Your task to perform on an android device: turn off smart reply in the gmail app Image 0: 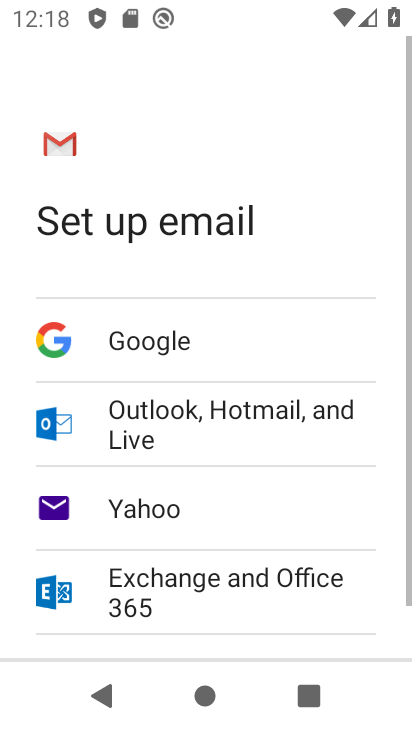
Step 0: press home button
Your task to perform on an android device: turn off smart reply in the gmail app Image 1: 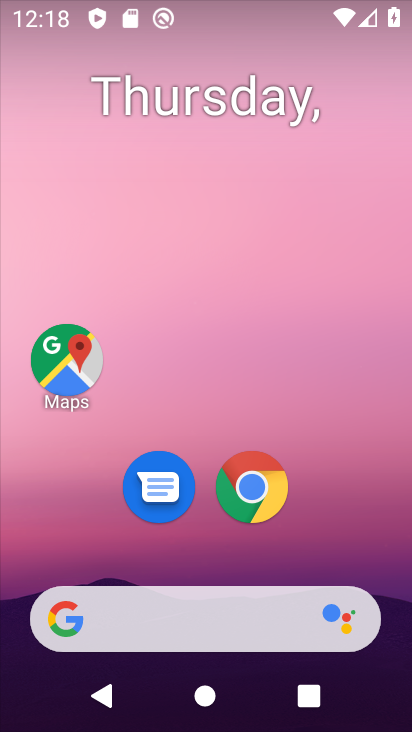
Step 1: drag from (364, 540) to (350, 172)
Your task to perform on an android device: turn off smart reply in the gmail app Image 2: 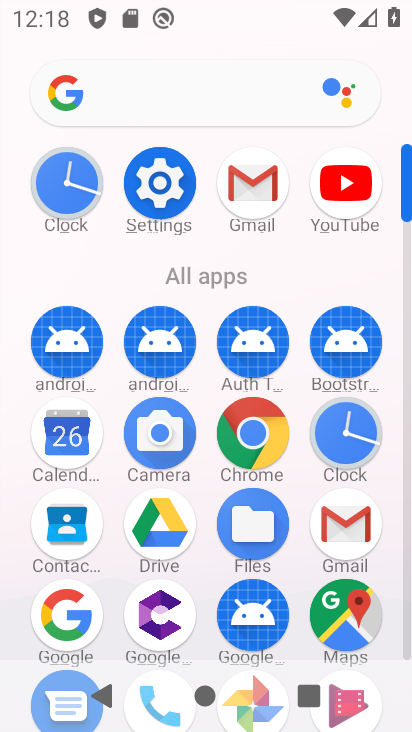
Step 2: click (364, 529)
Your task to perform on an android device: turn off smart reply in the gmail app Image 3: 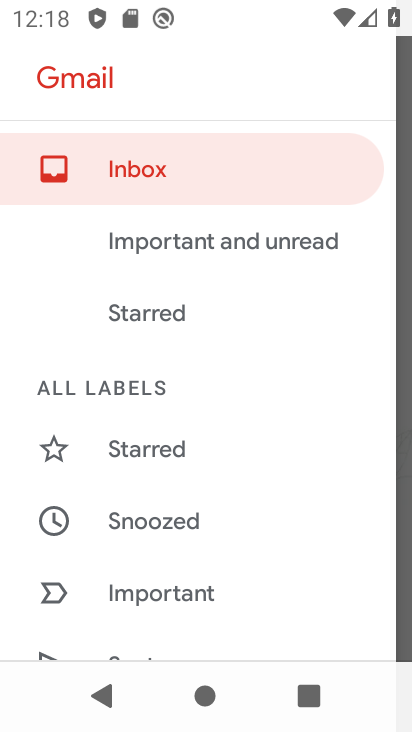
Step 3: drag from (277, 578) to (211, 146)
Your task to perform on an android device: turn off smart reply in the gmail app Image 4: 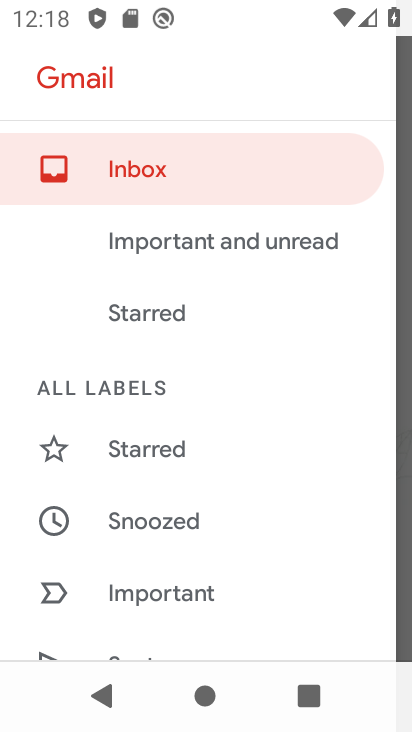
Step 4: drag from (120, 591) to (291, 173)
Your task to perform on an android device: turn off smart reply in the gmail app Image 5: 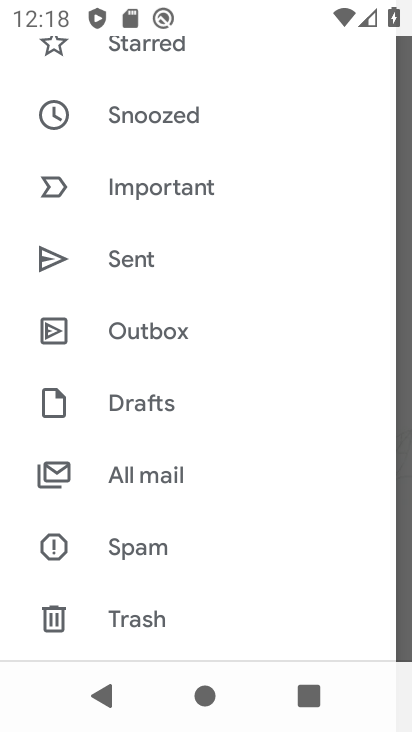
Step 5: drag from (158, 571) to (336, 89)
Your task to perform on an android device: turn off smart reply in the gmail app Image 6: 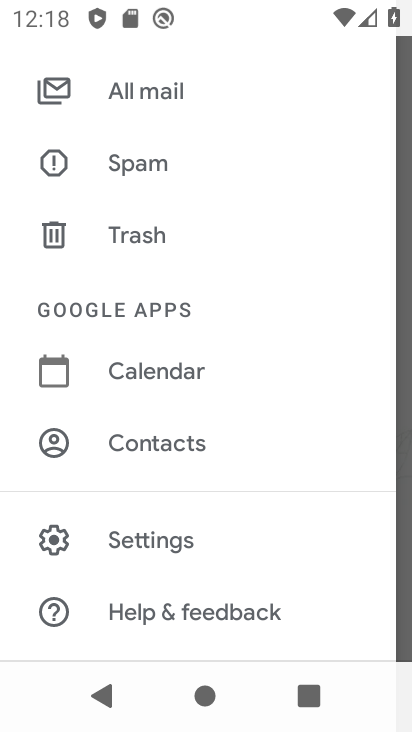
Step 6: click (173, 555)
Your task to perform on an android device: turn off smart reply in the gmail app Image 7: 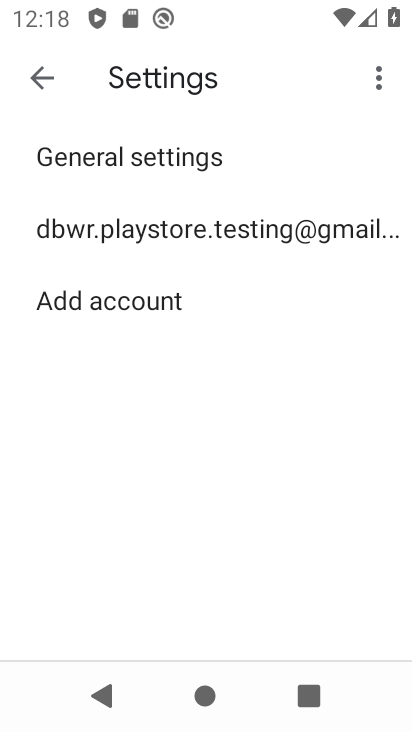
Step 7: click (273, 234)
Your task to perform on an android device: turn off smart reply in the gmail app Image 8: 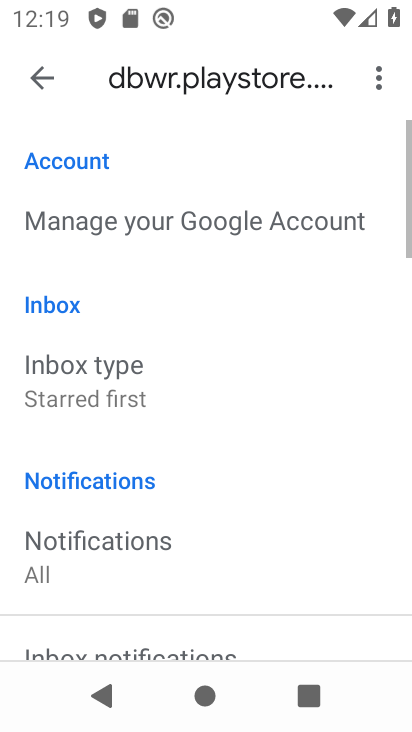
Step 8: drag from (204, 570) to (199, 96)
Your task to perform on an android device: turn off smart reply in the gmail app Image 9: 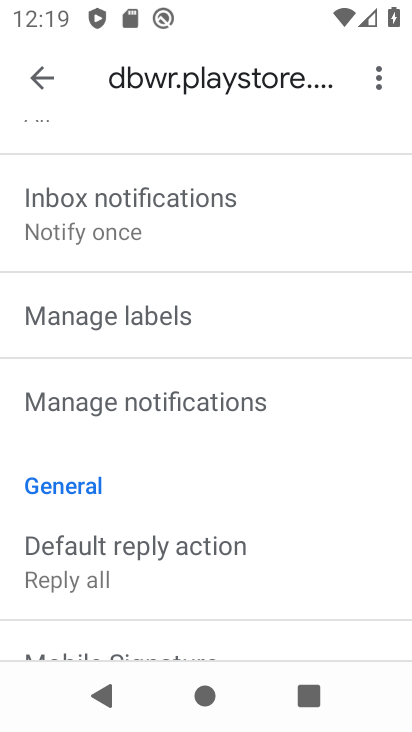
Step 9: drag from (250, 531) to (295, 185)
Your task to perform on an android device: turn off smart reply in the gmail app Image 10: 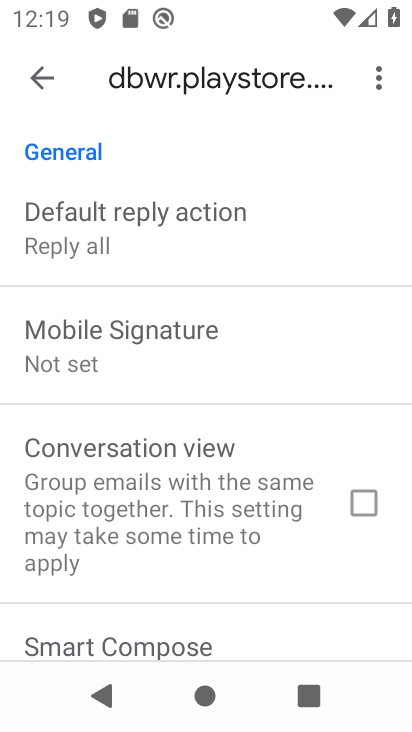
Step 10: drag from (217, 575) to (209, 240)
Your task to perform on an android device: turn off smart reply in the gmail app Image 11: 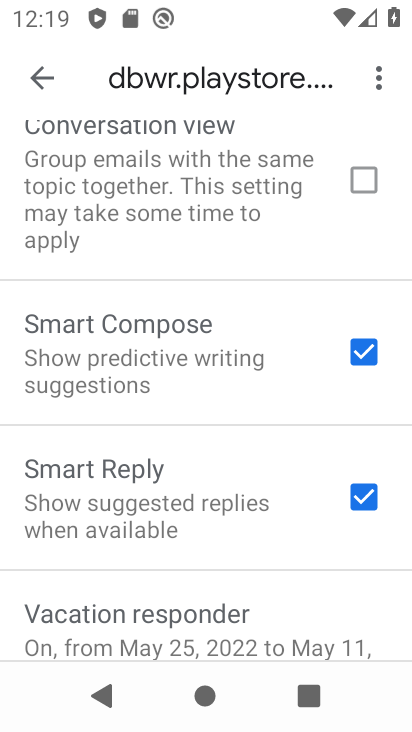
Step 11: click (188, 511)
Your task to perform on an android device: turn off smart reply in the gmail app Image 12: 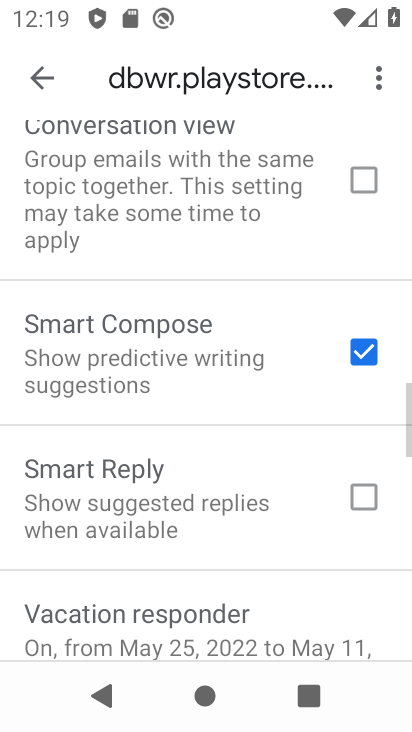
Step 12: task complete